Your task to perform on an android device: remove spam from my inbox in the gmail app Image 0: 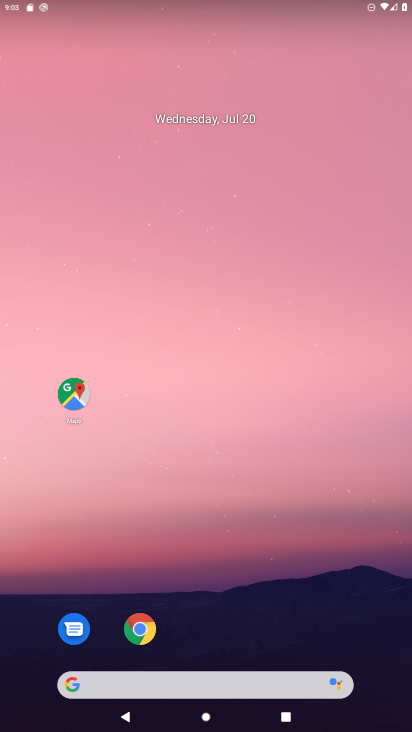
Step 0: drag from (378, 654) to (342, 134)
Your task to perform on an android device: remove spam from my inbox in the gmail app Image 1: 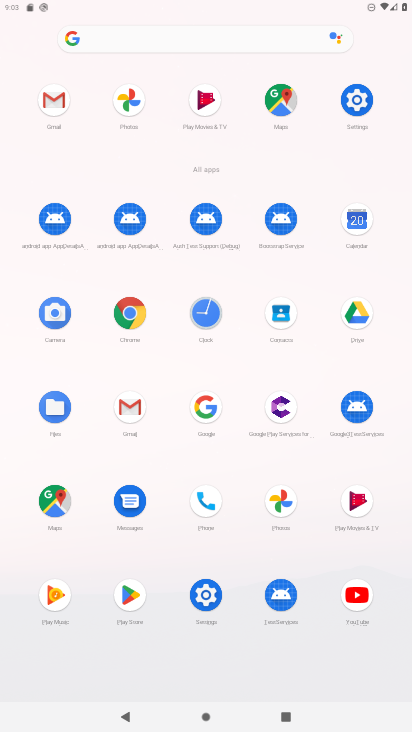
Step 1: click (128, 405)
Your task to perform on an android device: remove spam from my inbox in the gmail app Image 2: 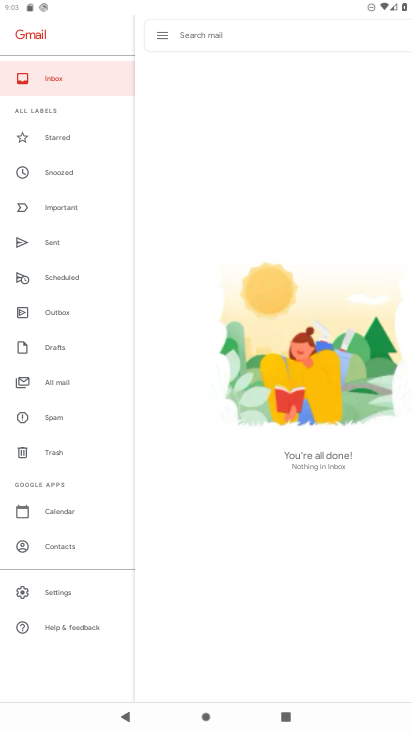
Step 2: click (51, 419)
Your task to perform on an android device: remove spam from my inbox in the gmail app Image 3: 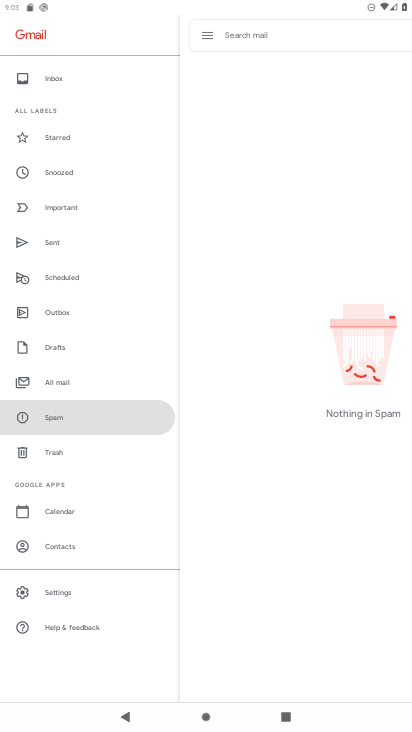
Step 3: task complete